Your task to perform on an android device: When is my next meeting? Image 0: 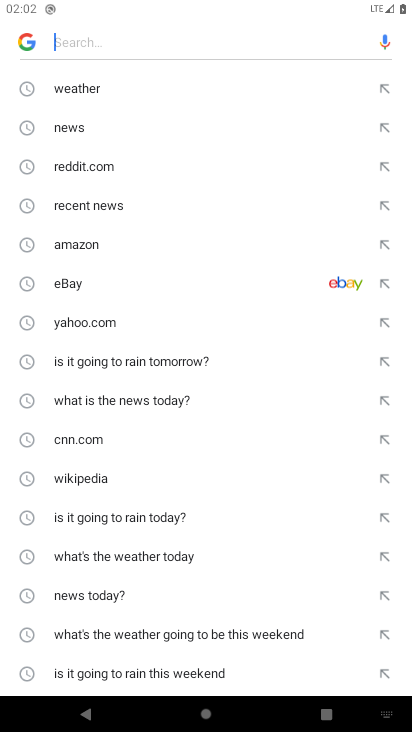
Step 0: press home button
Your task to perform on an android device: When is my next meeting? Image 1: 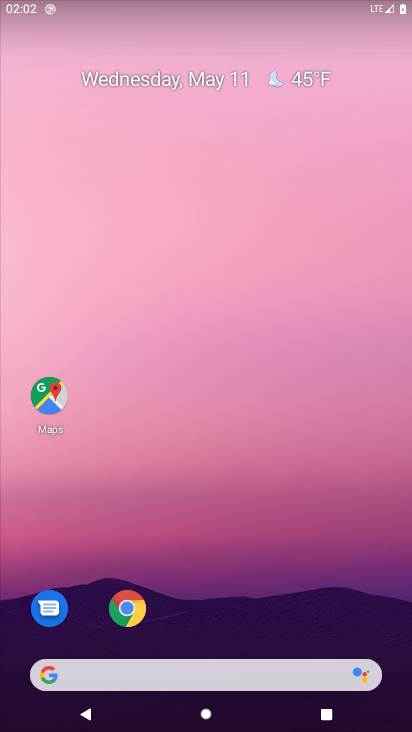
Step 1: drag from (225, 633) to (228, 86)
Your task to perform on an android device: When is my next meeting? Image 2: 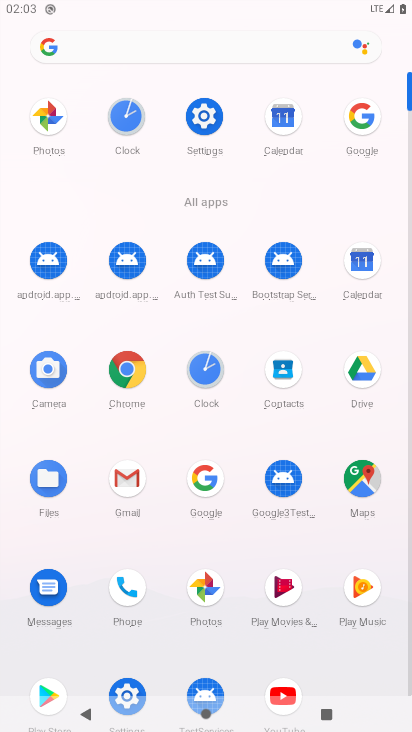
Step 2: click (366, 262)
Your task to perform on an android device: When is my next meeting? Image 3: 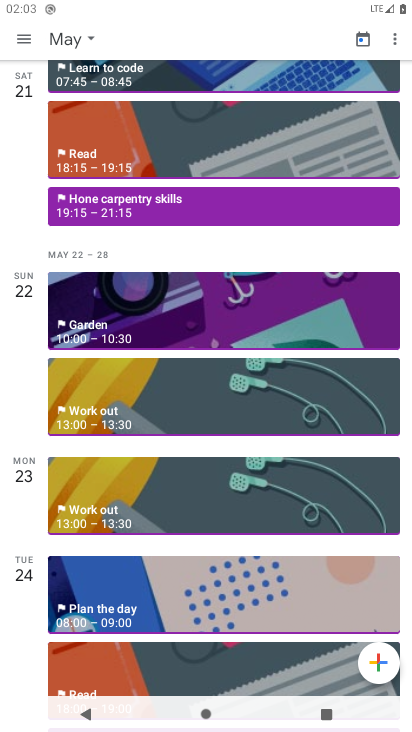
Step 3: drag from (35, 180) to (36, 615)
Your task to perform on an android device: When is my next meeting? Image 4: 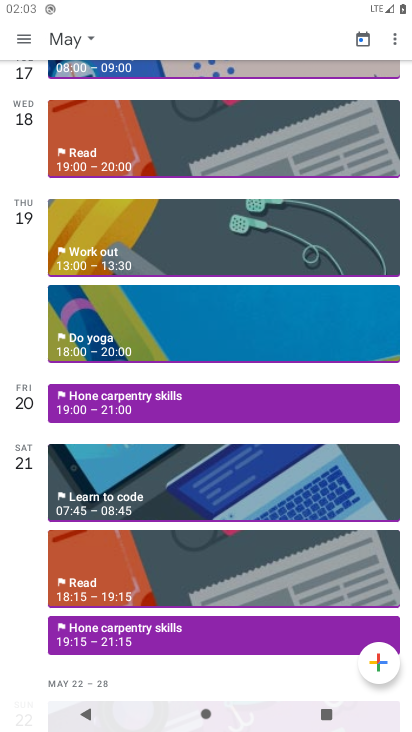
Step 4: drag from (22, 169) to (30, 654)
Your task to perform on an android device: When is my next meeting? Image 5: 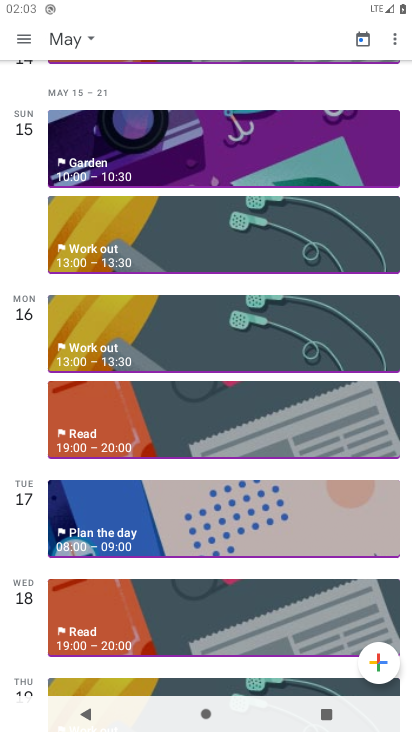
Step 5: drag from (30, 179) to (45, 710)
Your task to perform on an android device: When is my next meeting? Image 6: 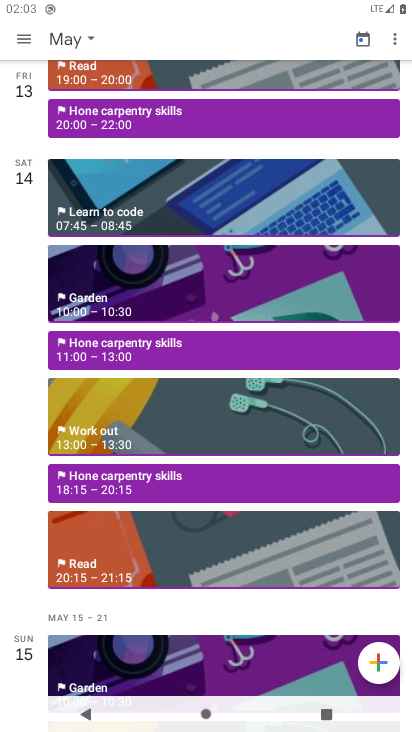
Step 6: click (27, 213)
Your task to perform on an android device: When is my next meeting? Image 7: 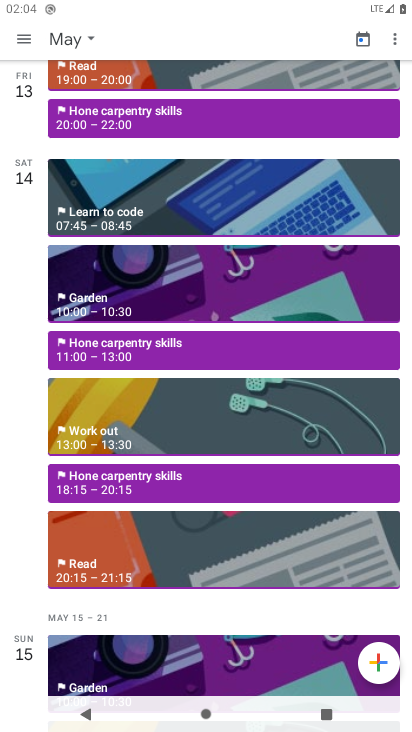
Step 7: task complete